Your task to perform on an android device: toggle wifi Image 0: 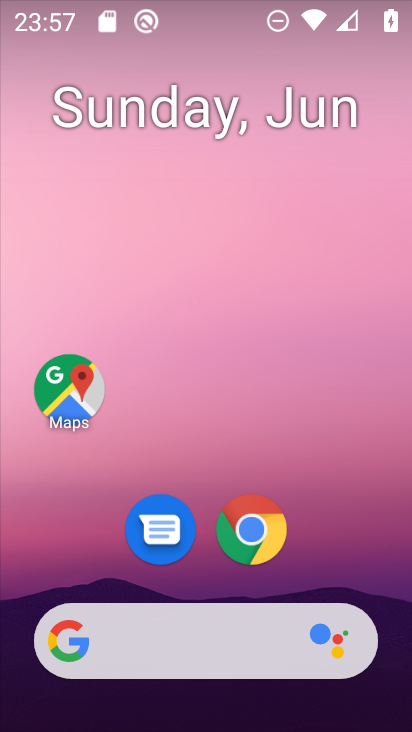
Step 0: drag from (380, 484) to (360, 27)
Your task to perform on an android device: toggle wifi Image 1: 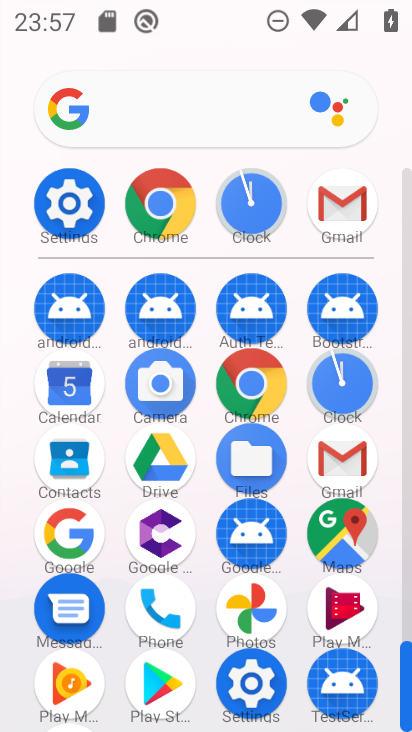
Step 1: click (250, 685)
Your task to perform on an android device: toggle wifi Image 2: 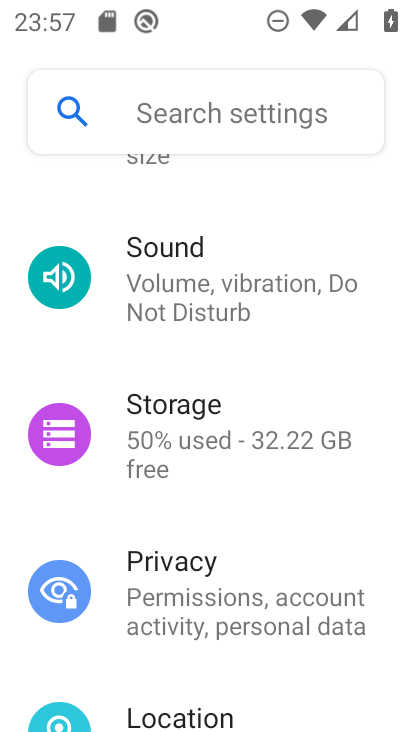
Step 2: drag from (365, 257) to (343, 567)
Your task to perform on an android device: toggle wifi Image 3: 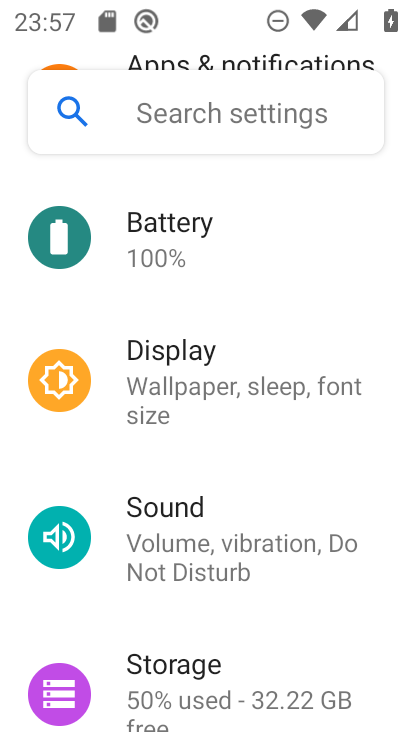
Step 3: drag from (355, 257) to (367, 592)
Your task to perform on an android device: toggle wifi Image 4: 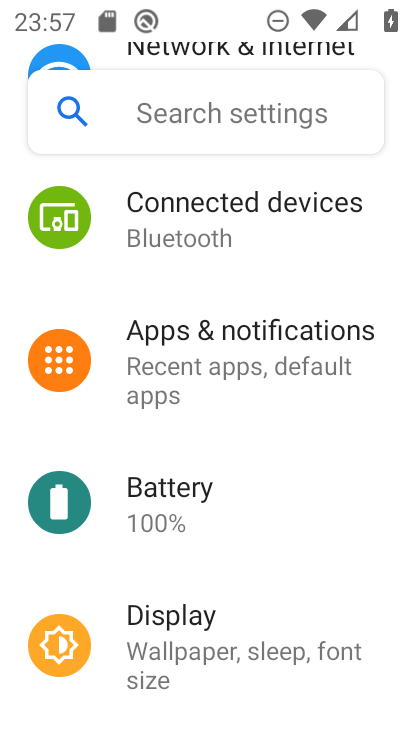
Step 4: drag from (372, 222) to (345, 532)
Your task to perform on an android device: toggle wifi Image 5: 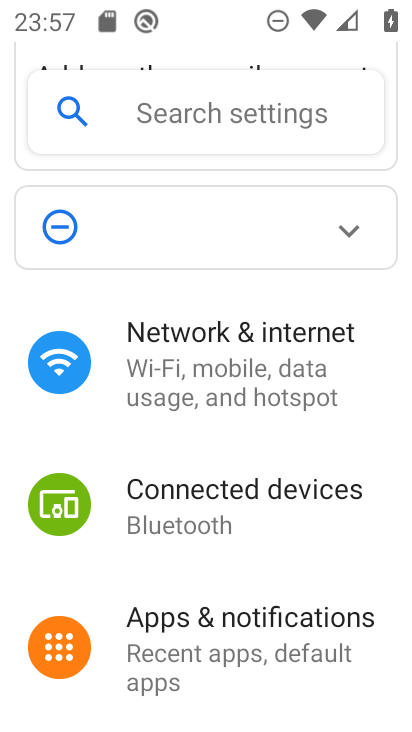
Step 5: click (160, 341)
Your task to perform on an android device: toggle wifi Image 6: 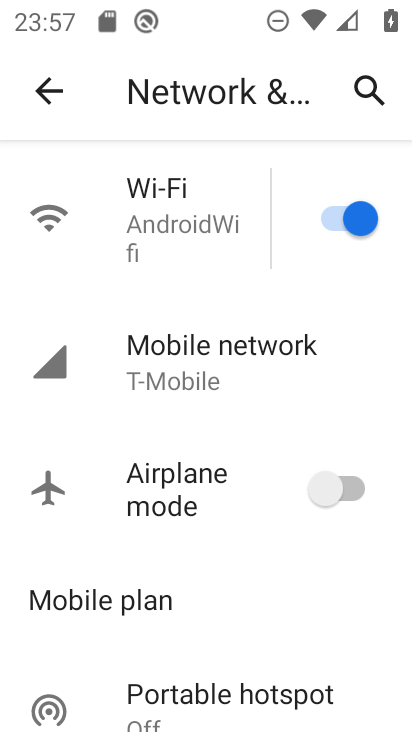
Step 6: click (332, 214)
Your task to perform on an android device: toggle wifi Image 7: 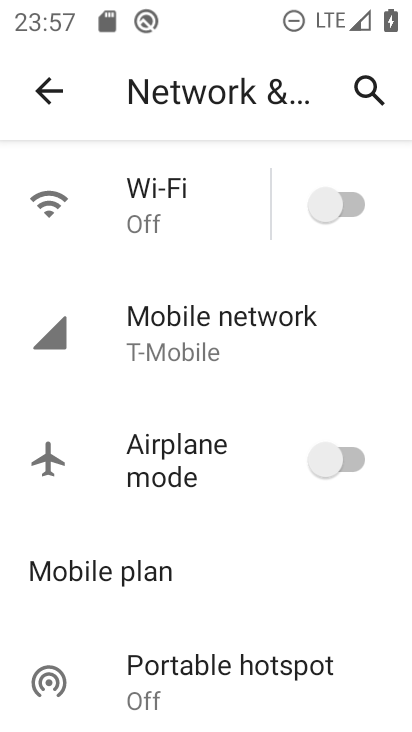
Step 7: task complete